Your task to perform on an android device: delete a single message in the gmail app Image 0: 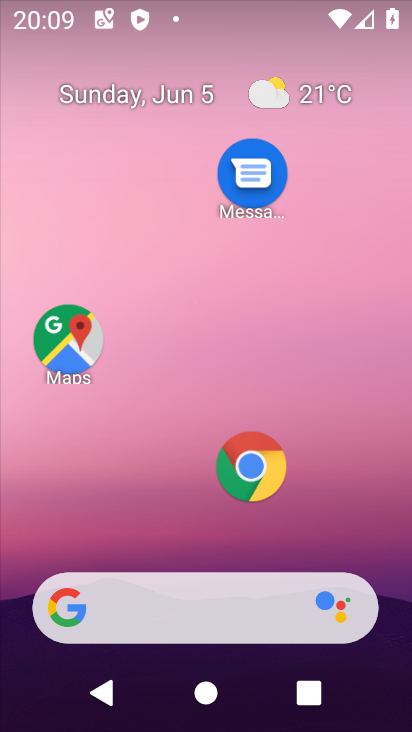
Step 0: drag from (183, 385) to (196, 75)
Your task to perform on an android device: delete a single message in the gmail app Image 1: 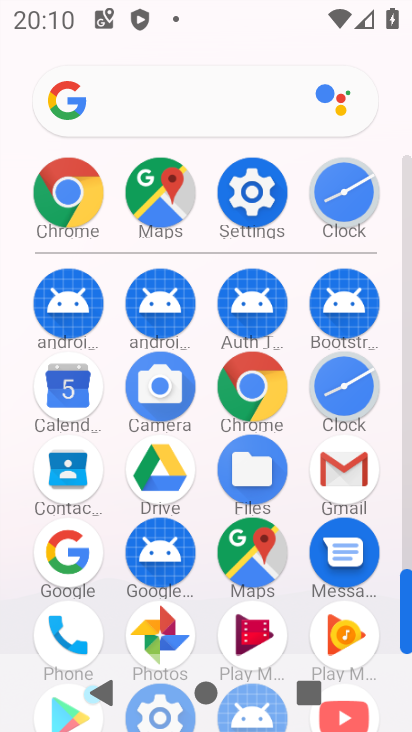
Step 1: drag from (216, 594) to (409, 429)
Your task to perform on an android device: delete a single message in the gmail app Image 2: 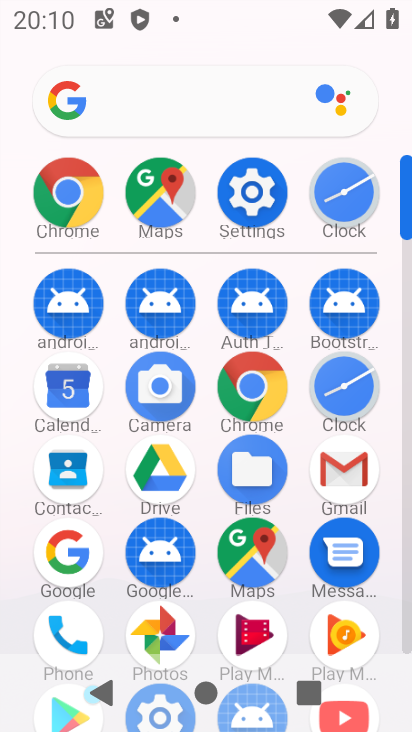
Step 2: click (345, 459)
Your task to perform on an android device: delete a single message in the gmail app Image 3: 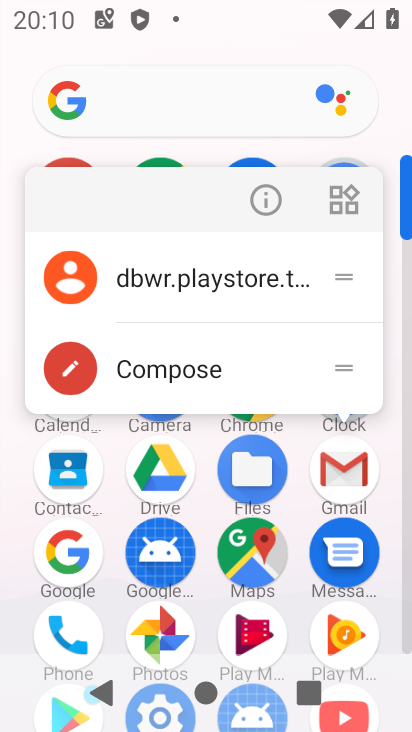
Step 3: click (260, 216)
Your task to perform on an android device: delete a single message in the gmail app Image 4: 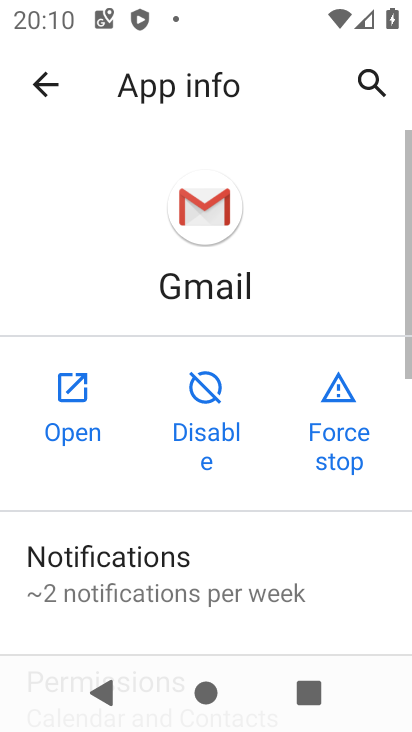
Step 4: click (63, 396)
Your task to perform on an android device: delete a single message in the gmail app Image 5: 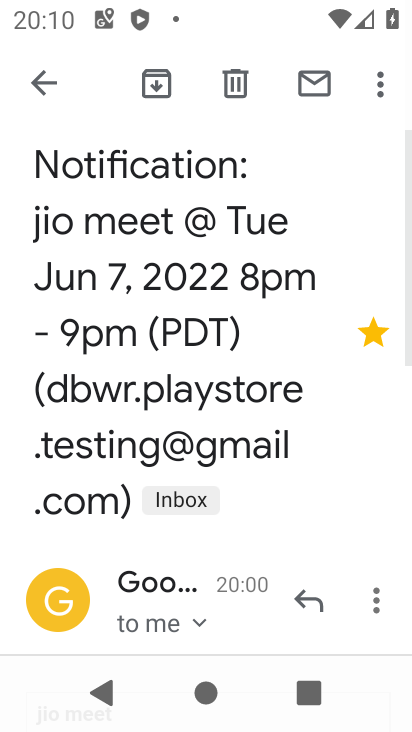
Step 5: drag from (247, 486) to (401, 714)
Your task to perform on an android device: delete a single message in the gmail app Image 6: 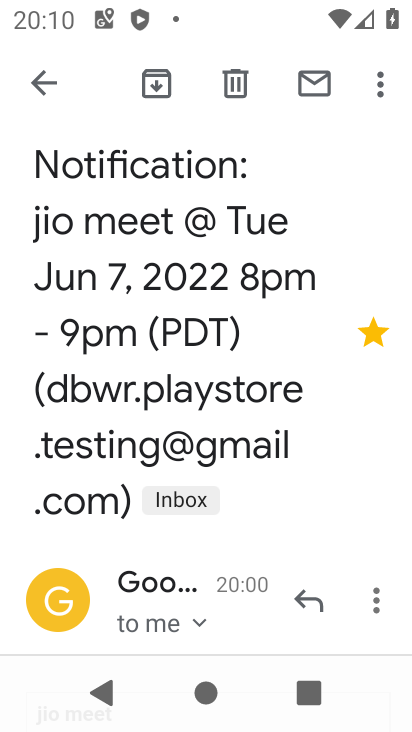
Step 6: click (225, 86)
Your task to perform on an android device: delete a single message in the gmail app Image 7: 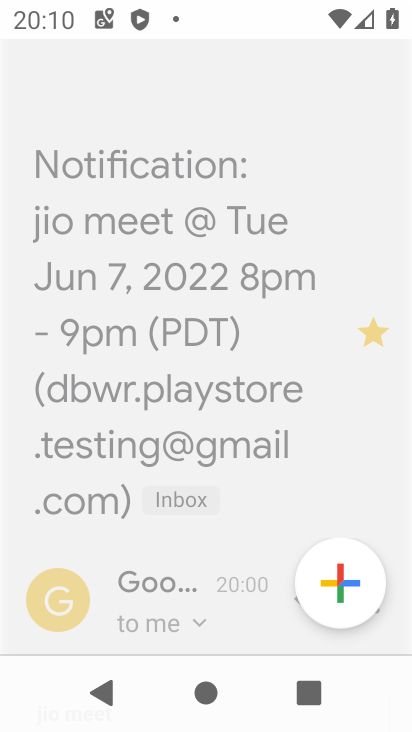
Step 7: task complete